Your task to perform on an android device: Go to CNN.com Image 0: 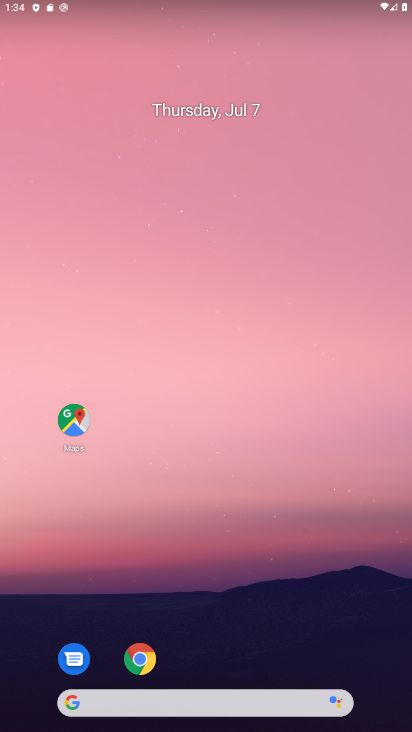
Step 0: click (213, 704)
Your task to perform on an android device: Go to CNN.com Image 1: 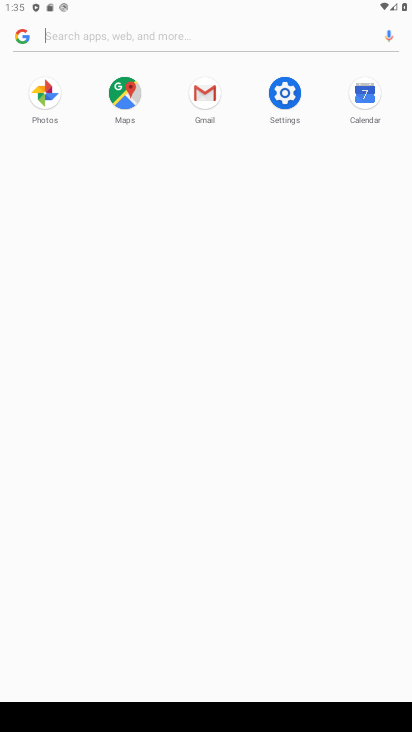
Step 1: type "cnn.com"
Your task to perform on an android device: Go to CNN.com Image 2: 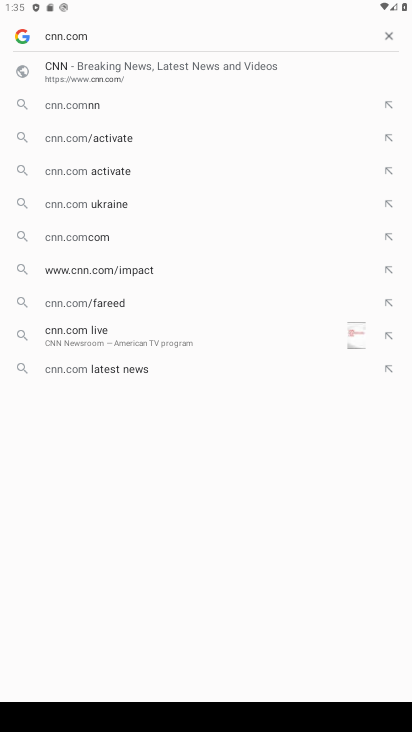
Step 2: click (82, 68)
Your task to perform on an android device: Go to CNN.com Image 3: 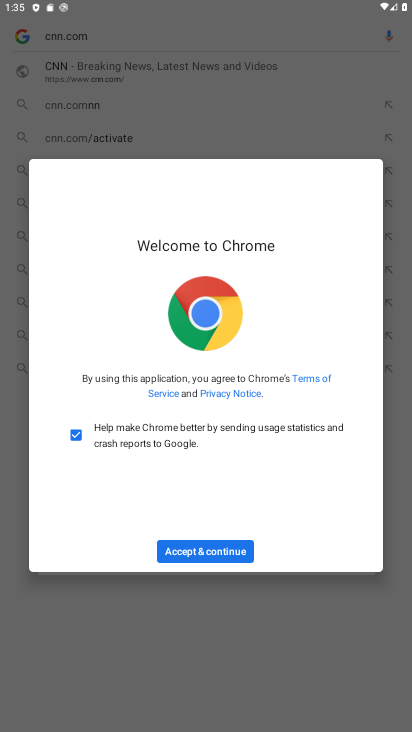
Step 3: click (198, 540)
Your task to perform on an android device: Go to CNN.com Image 4: 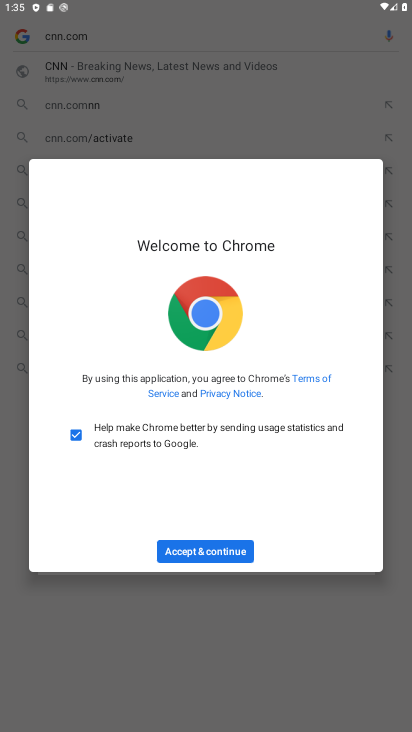
Step 4: click (199, 557)
Your task to perform on an android device: Go to CNN.com Image 5: 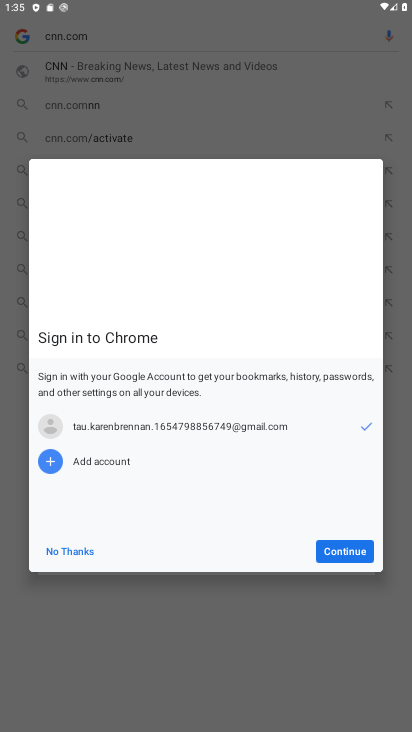
Step 5: click (338, 557)
Your task to perform on an android device: Go to CNN.com Image 6: 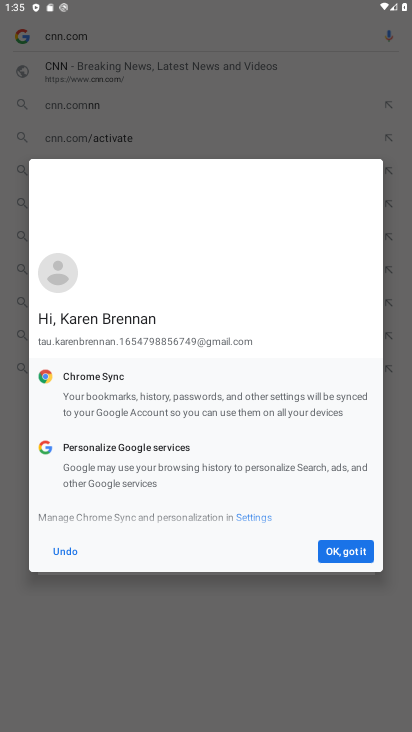
Step 6: click (338, 557)
Your task to perform on an android device: Go to CNN.com Image 7: 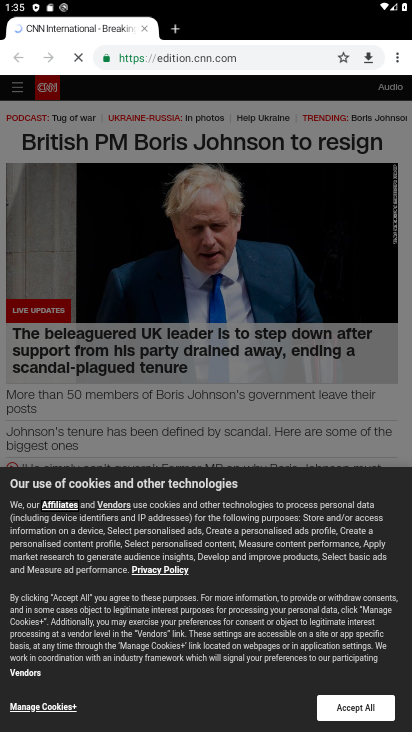
Step 7: task complete